Your task to perform on an android device: turn on the 12-hour format for clock Image 0: 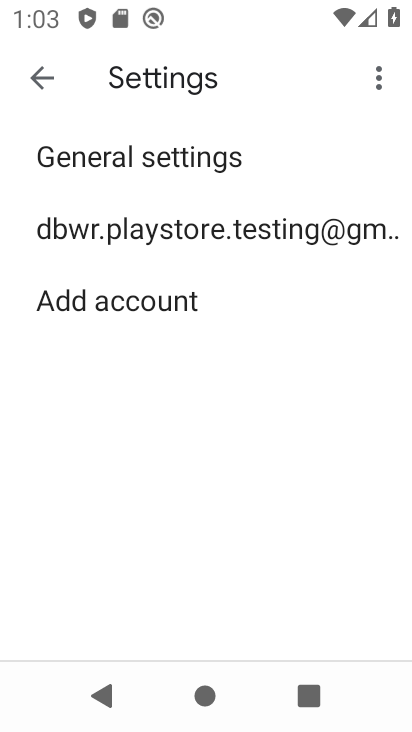
Step 0: press home button
Your task to perform on an android device: turn on the 12-hour format for clock Image 1: 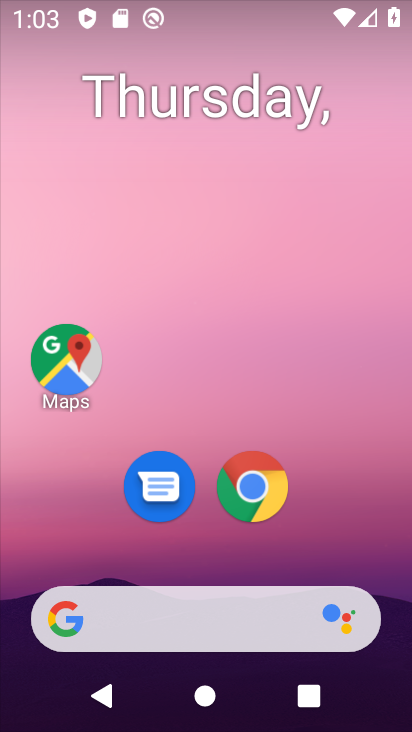
Step 1: drag from (392, 545) to (347, 90)
Your task to perform on an android device: turn on the 12-hour format for clock Image 2: 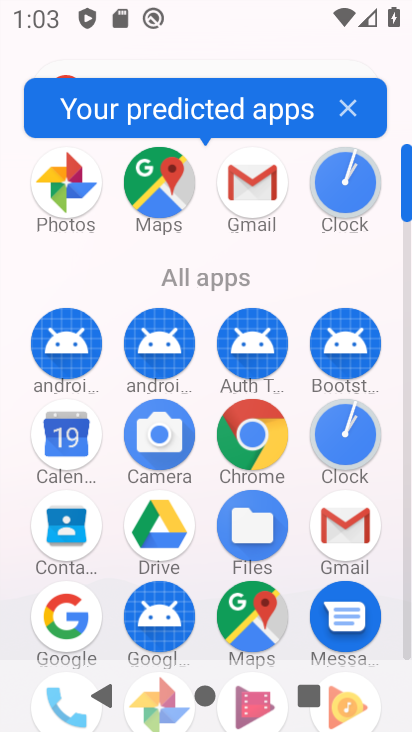
Step 2: click (339, 166)
Your task to perform on an android device: turn on the 12-hour format for clock Image 3: 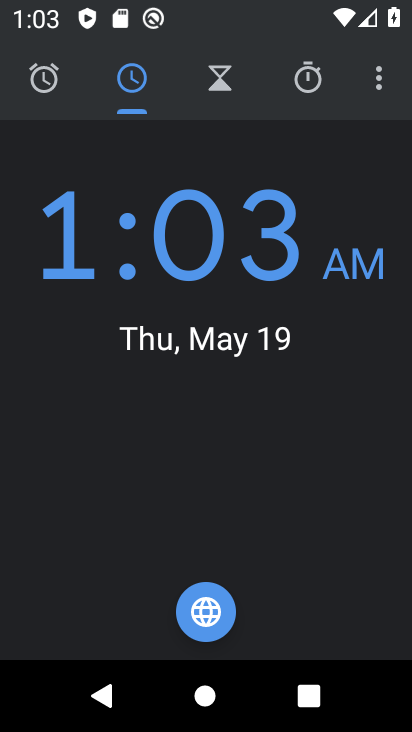
Step 3: click (366, 109)
Your task to perform on an android device: turn on the 12-hour format for clock Image 4: 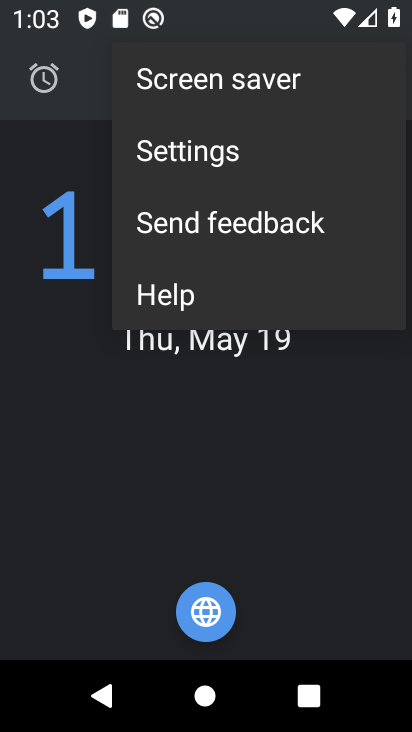
Step 4: click (319, 161)
Your task to perform on an android device: turn on the 12-hour format for clock Image 5: 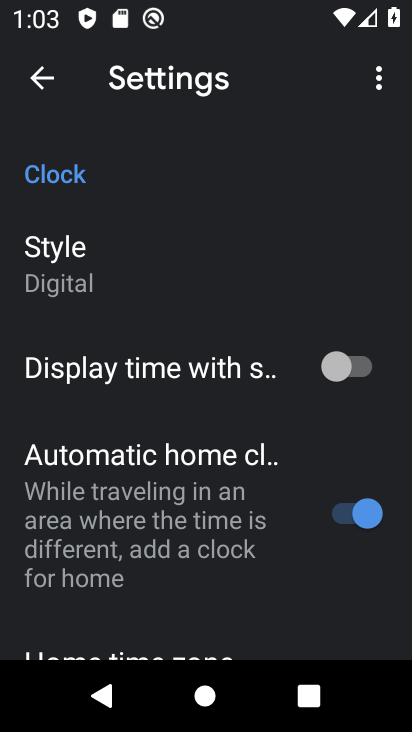
Step 5: drag from (288, 620) to (254, 84)
Your task to perform on an android device: turn on the 12-hour format for clock Image 6: 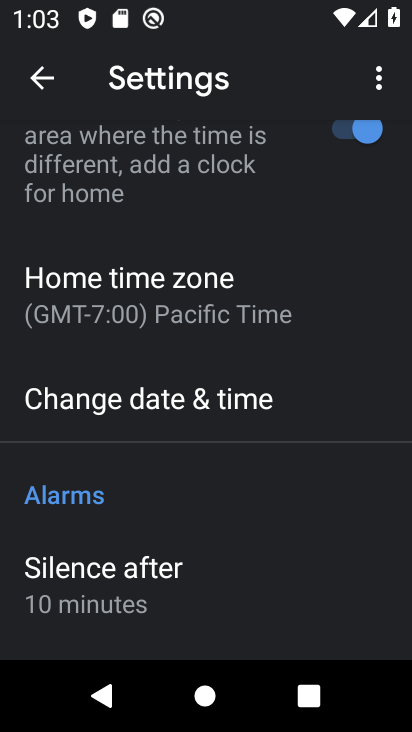
Step 6: click (245, 398)
Your task to perform on an android device: turn on the 12-hour format for clock Image 7: 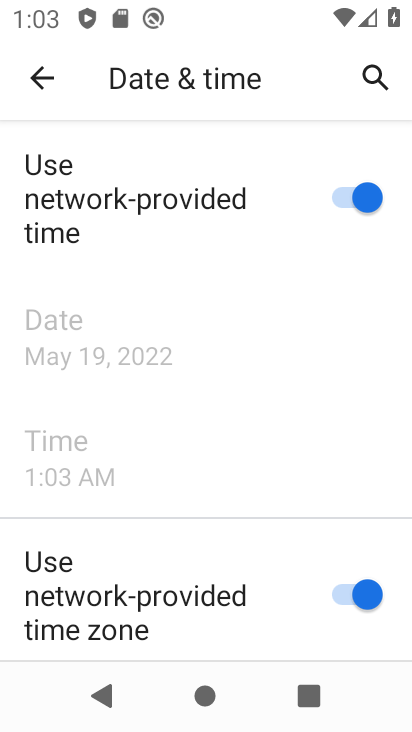
Step 7: task complete